Your task to perform on an android device: manage bookmarks in the chrome app Image 0: 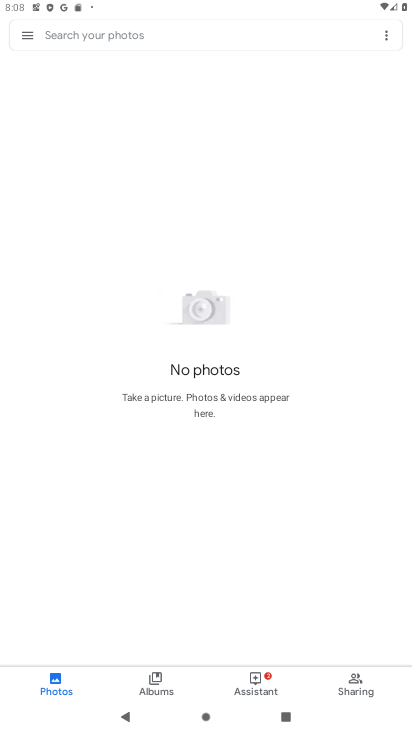
Step 0: press home button
Your task to perform on an android device: manage bookmarks in the chrome app Image 1: 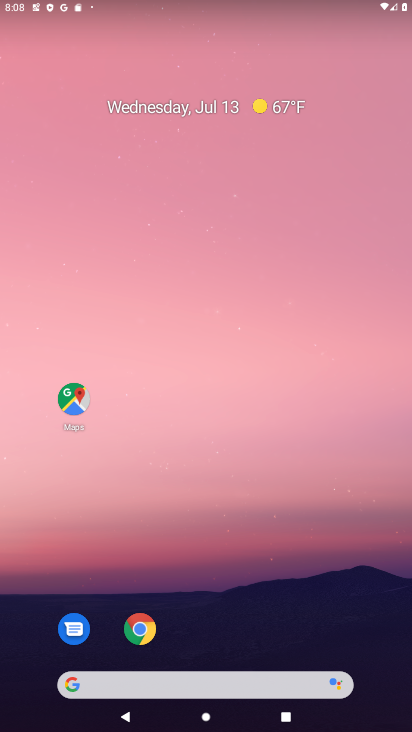
Step 1: click (143, 623)
Your task to perform on an android device: manage bookmarks in the chrome app Image 2: 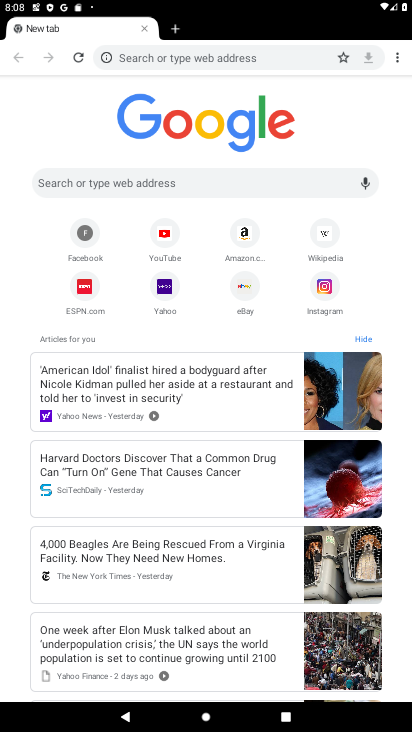
Step 2: click (396, 54)
Your task to perform on an android device: manage bookmarks in the chrome app Image 3: 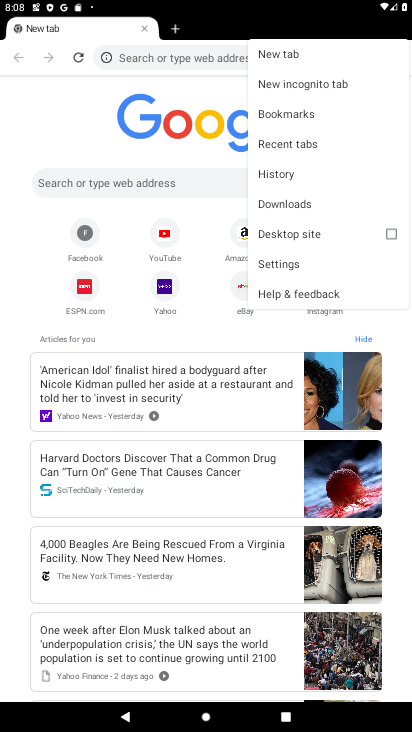
Step 3: click (326, 118)
Your task to perform on an android device: manage bookmarks in the chrome app Image 4: 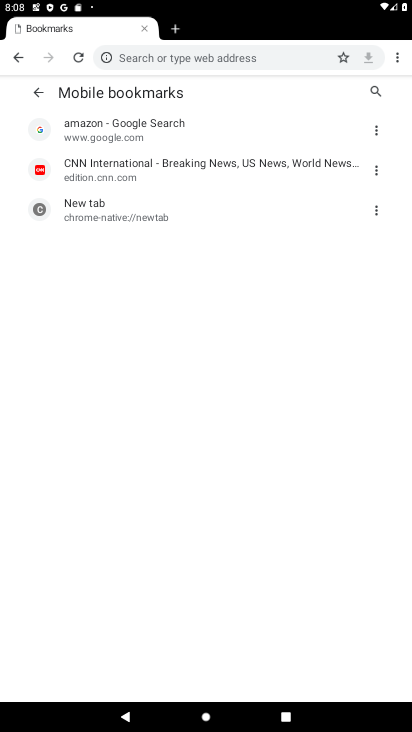
Step 4: click (374, 209)
Your task to perform on an android device: manage bookmarks in the chrome app Image 5: 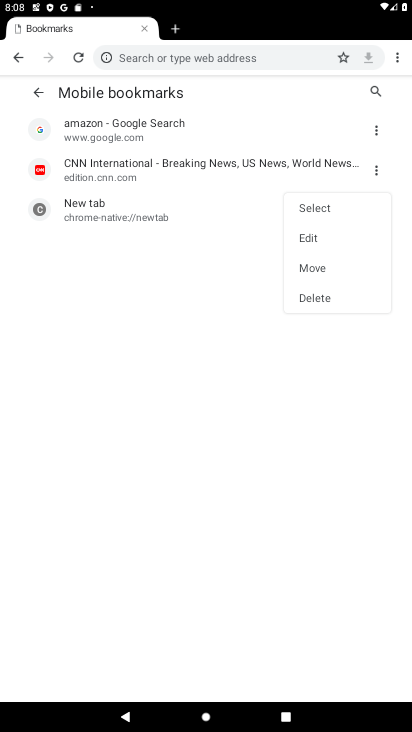
Step 5: click (314, 304)
Your task to perform on an android device: manage bookmarks in the chrome app Image 6: 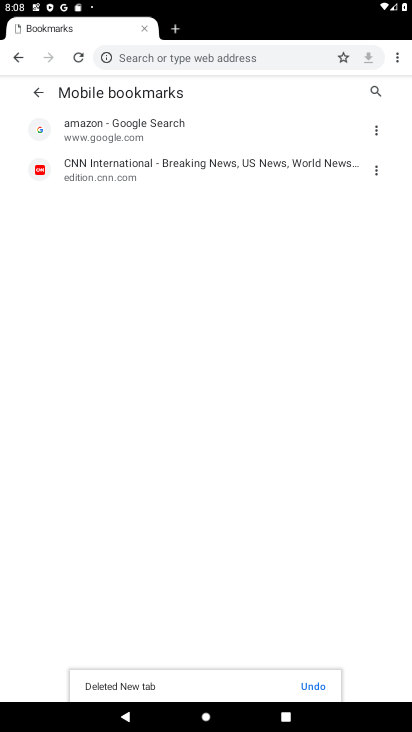
Step 6: task complete